Your task to perform on an android device: Open network settings Image 0: 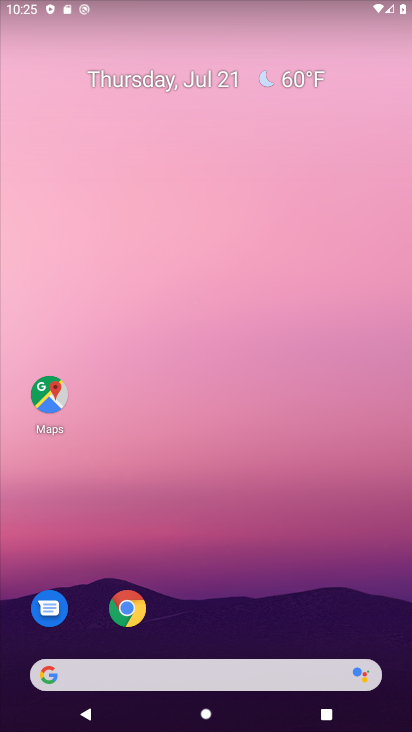
Step 0: drag from (208, 637) to (224, 161)
Your task to perform on an android device: Open network settings Image 1: 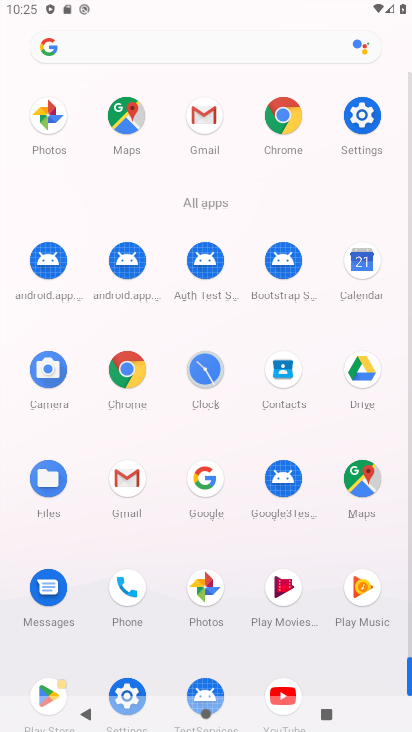
Step 1: click (126, 683)
Your task to perform on an android device: Open network settings Image 2: 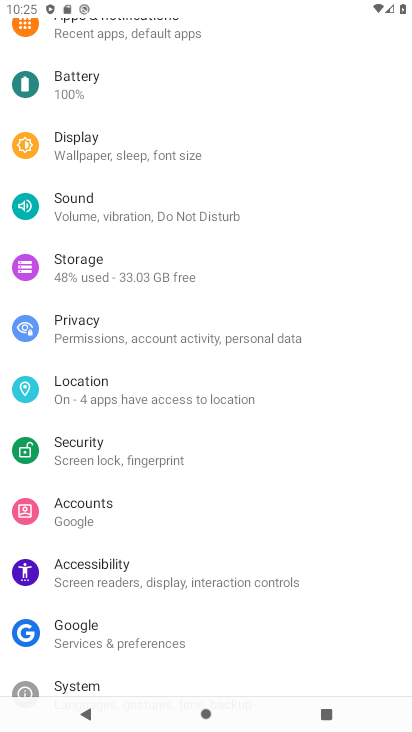
Step 2: drag from (144, 108) to (146, 356)
Your task to perform on an android device: Open network settings Image 3: 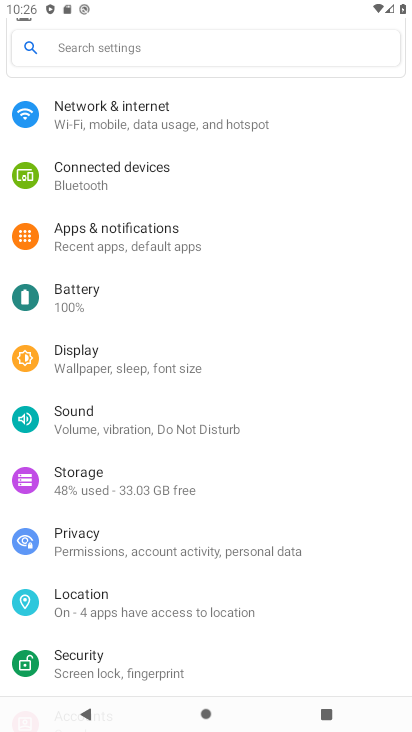
Step 3: click (131, 127)
Your task to perform on an android device: Open network settings Image 4: 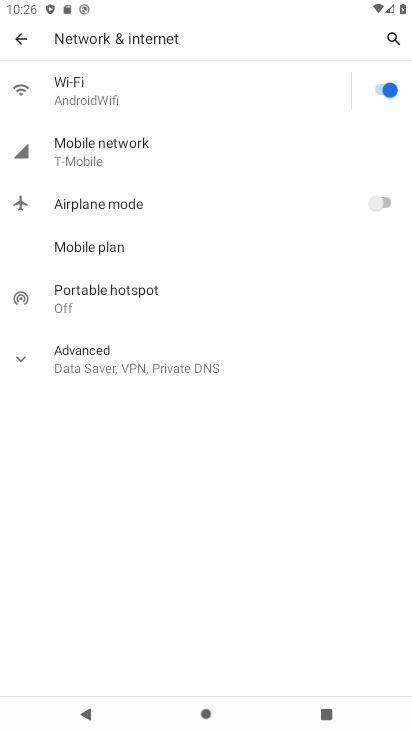
Step 4: task complete